Your task to perform on an android device: Turn off the flashlight Image 0: 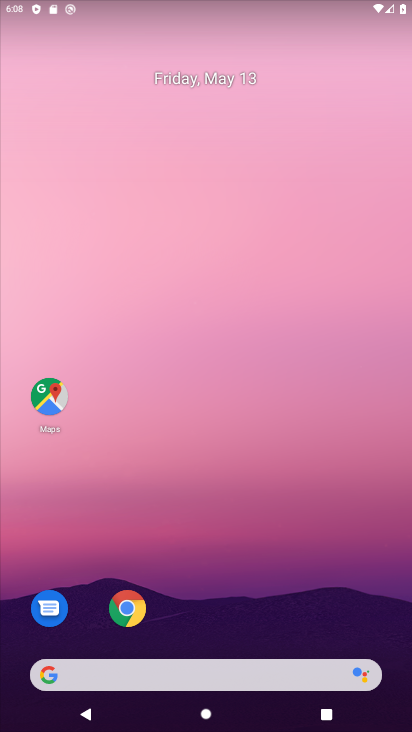
Step 0: drag from (206, 636) to (287, 97)
Your task to perform on an android device: Turn off the flashlight Image 1: 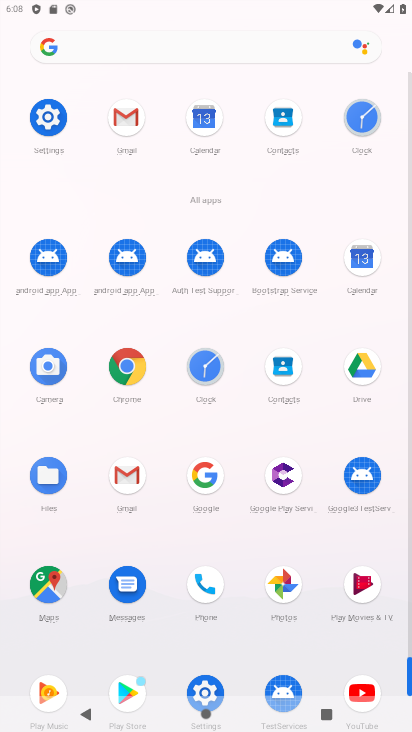
Step 1: click (56, 124)
Your task to perform on an android device: Turn off the flashlight Image 2: 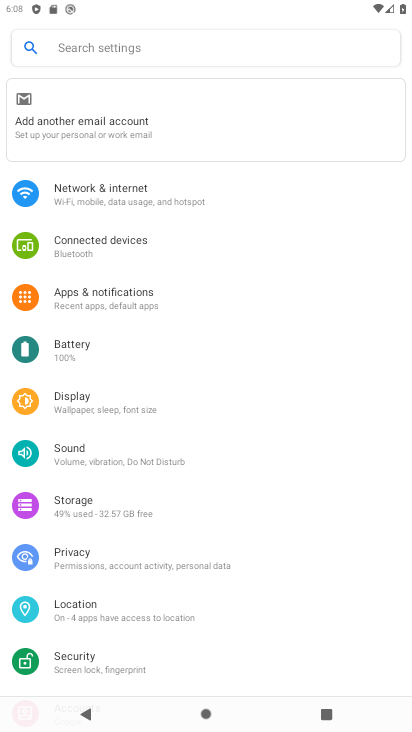
Step 2: click (181, 44)
Your task to perform on an android device: Turn off the flashlight Image 3: 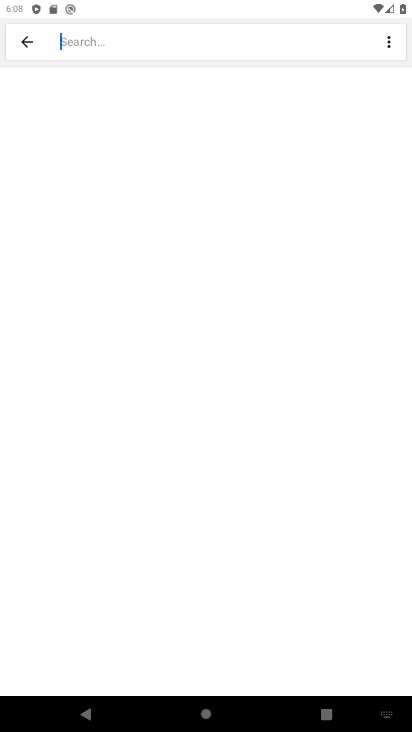
Step 3: click (202, 50)
Your task to perform on an android device: Turn off the flashlight Image 4: 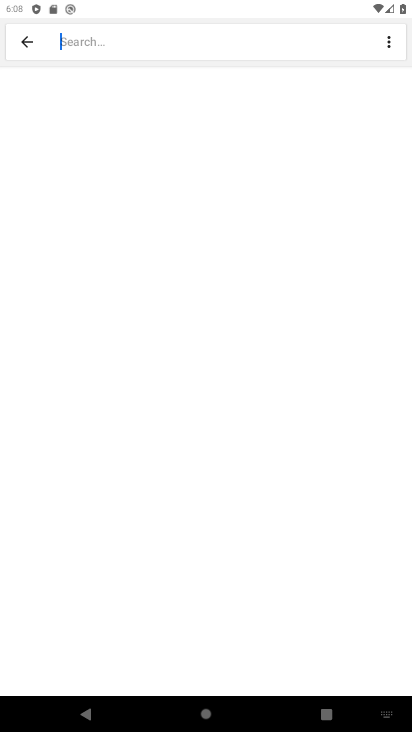
Step 4: type "flashlight"
Your task to perform on an android device: Turn off the flashlight Image 5: 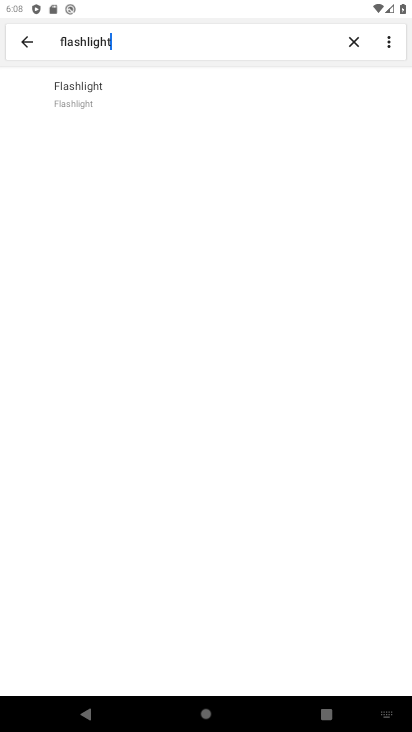
Step 5: click (99, 91)
Your task to perform on an android device: Turn off the flashlight Image 6: 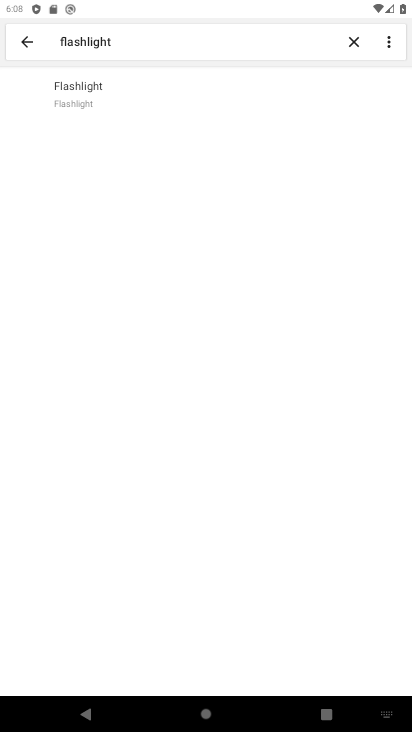
Step 6: click (98, 96)
Your task to perform on an android device: Turn off the flashlight Image 7: 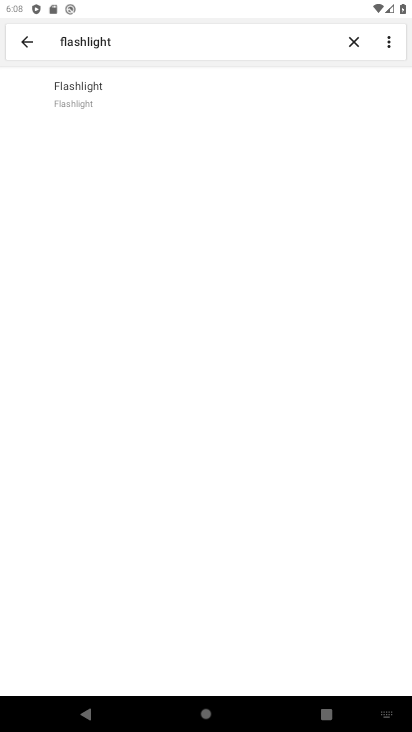
Step 7: task complete